Your task to perform on an android device: open app "Lyft - Rideshare, Bikes, Scooters & Transit" Image 0: 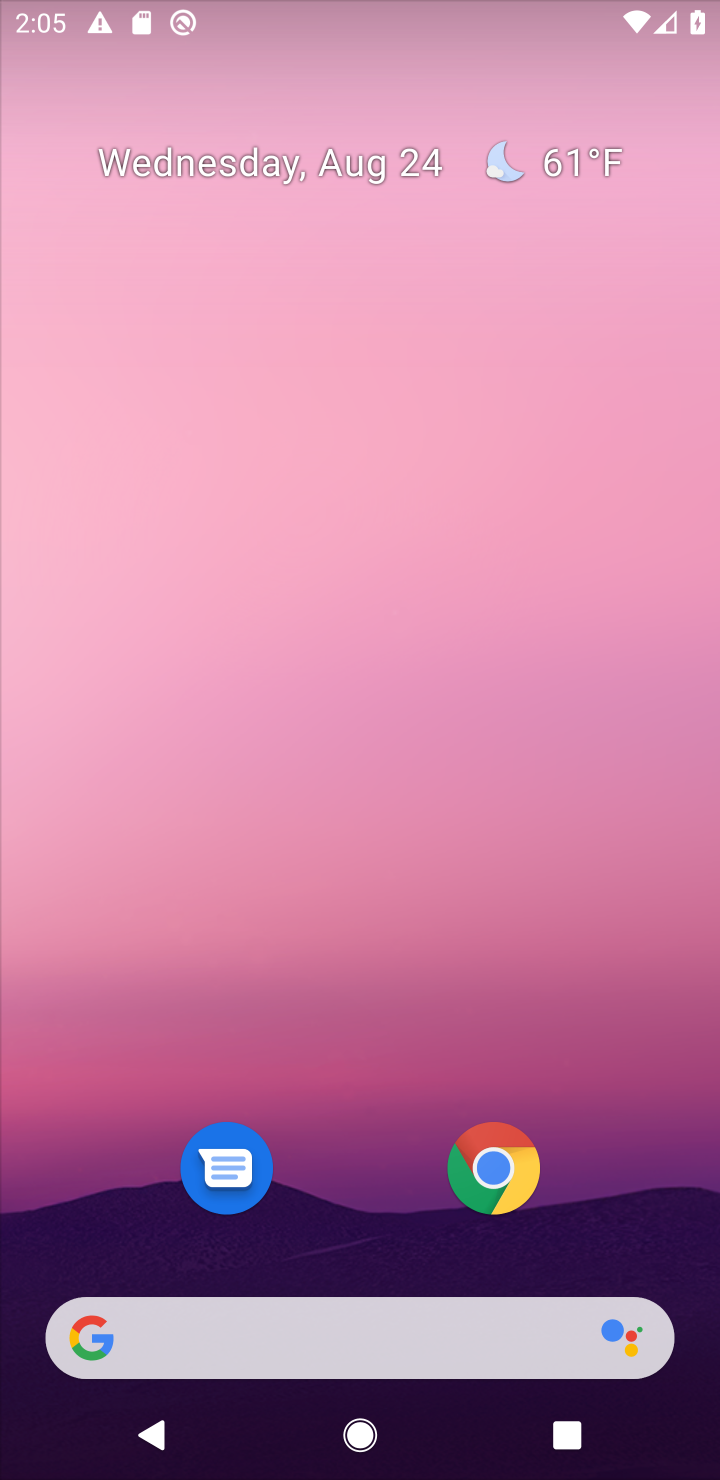
Step 0: press home button
Your task to perform on an android device: open app "Lyft - Rideshare, Bikes, Scooters & Transit" Image 1: 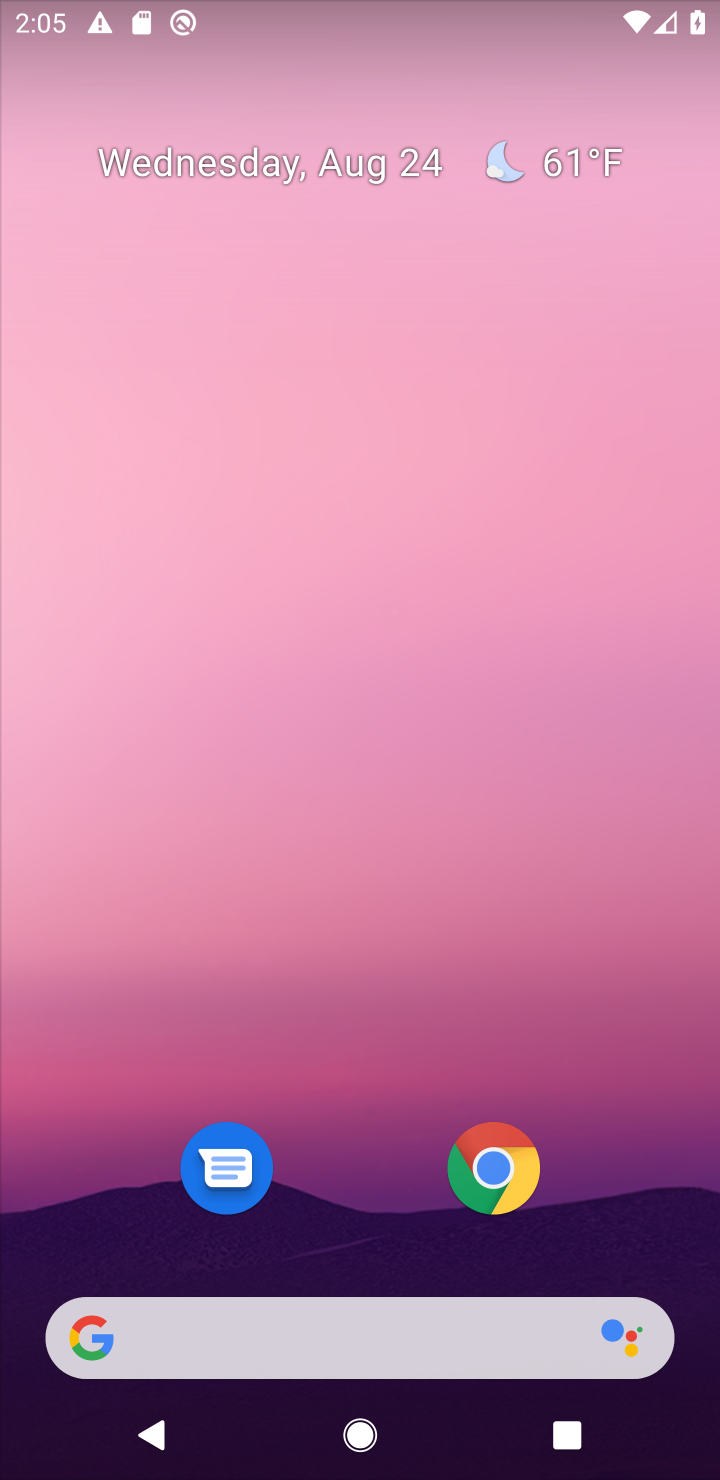
Step 1: drag from (600, 1186) to (555, 547)
Your task to perform on an android device: open app "Lyft - Rideshare, Bikes, Scooters & Transit" Image 2: 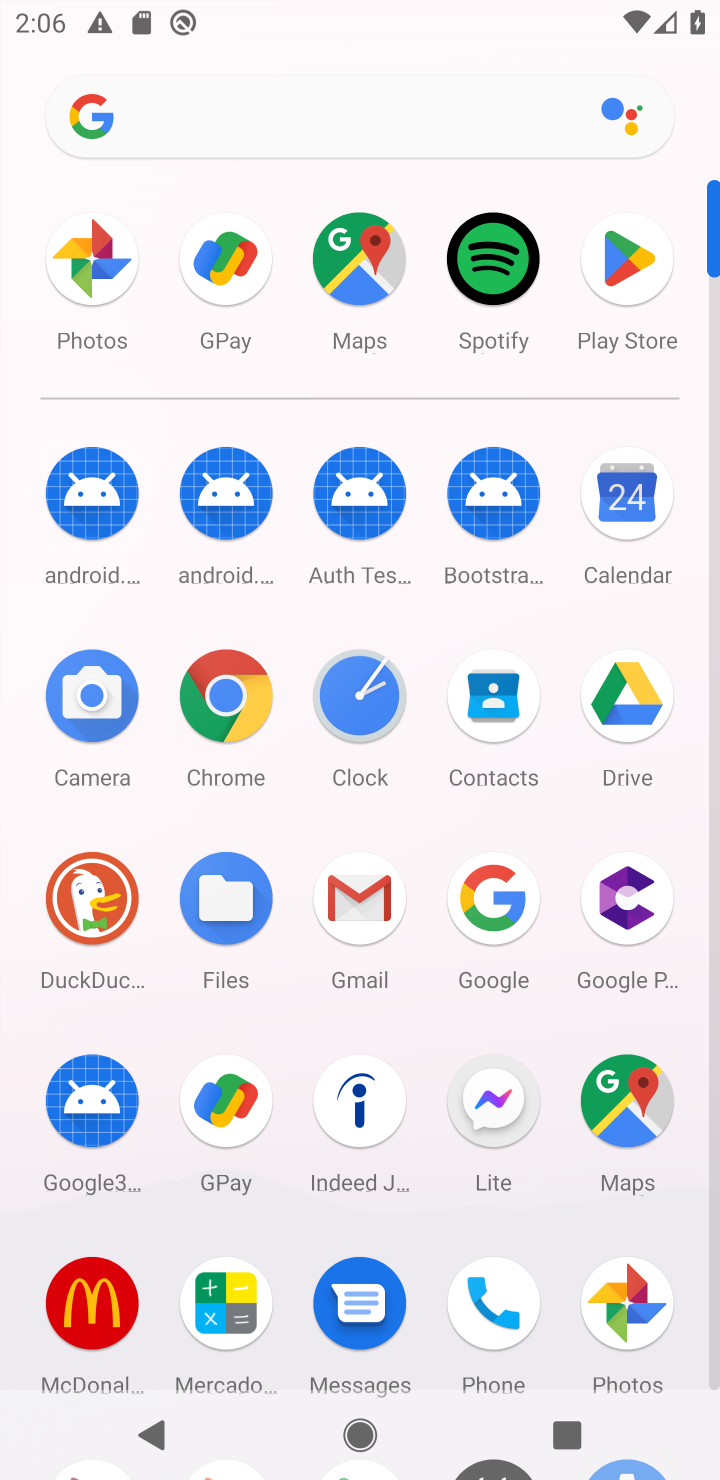
Step 2: click (717, 1280)
Your task to perform on an android device: open app "Lyft - Rideshare, Bikes, Scooters & Transit" Image 3: 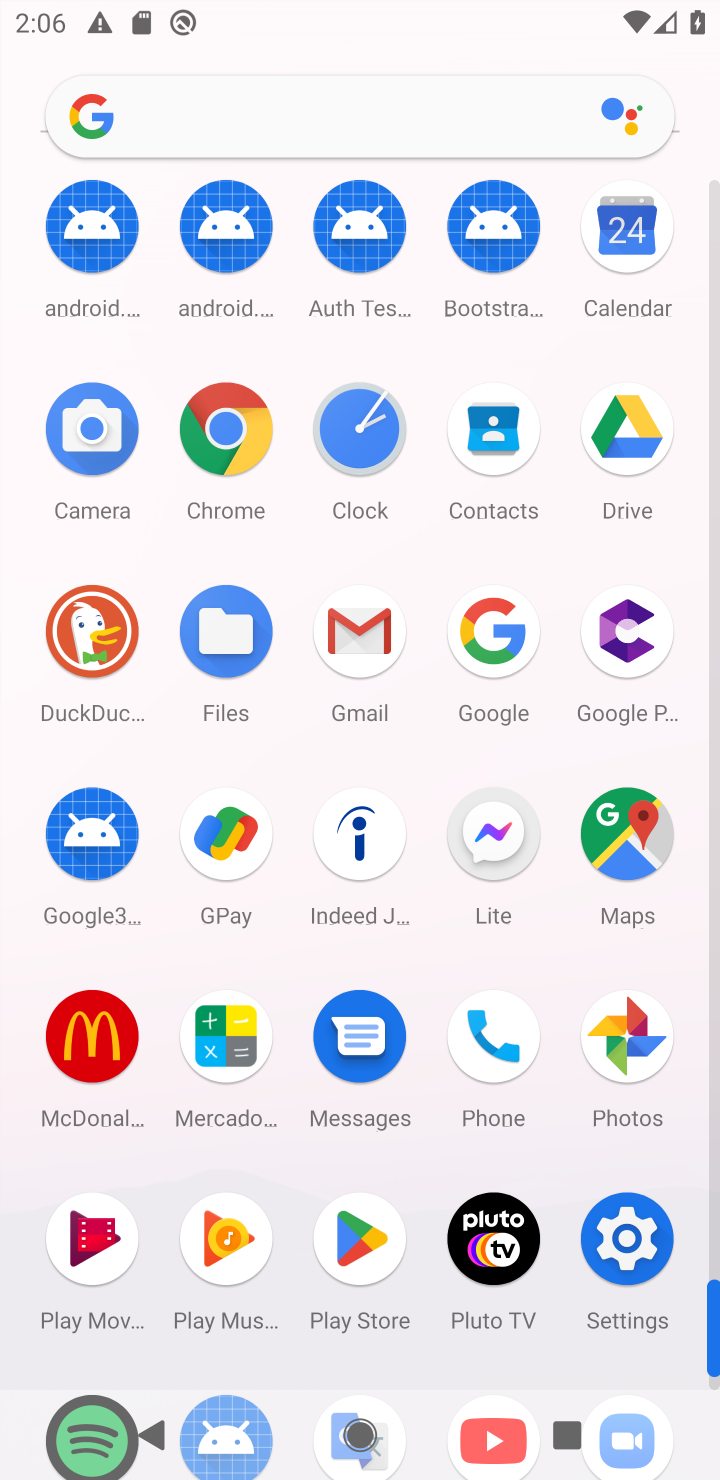
Step 3: click (359, 1234)
Your task to perform on an android device: open app "Lyft - Rideshare, Bikes, Scooters & Transit" Image 4: 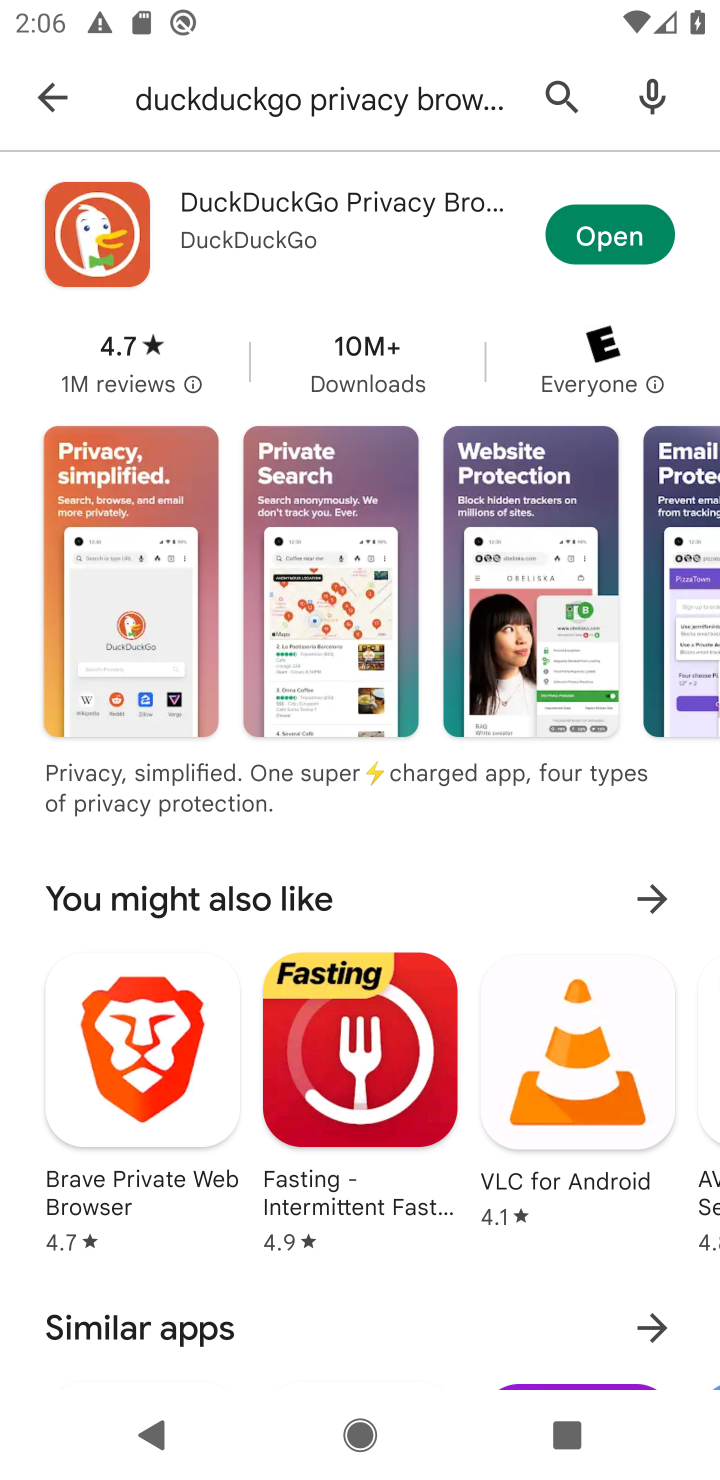
Step 4: click (551, 82)
Your task to perform on an android device: open app "Lyft - Rideshare, Bikes, Scooters & Transit" Image 5: 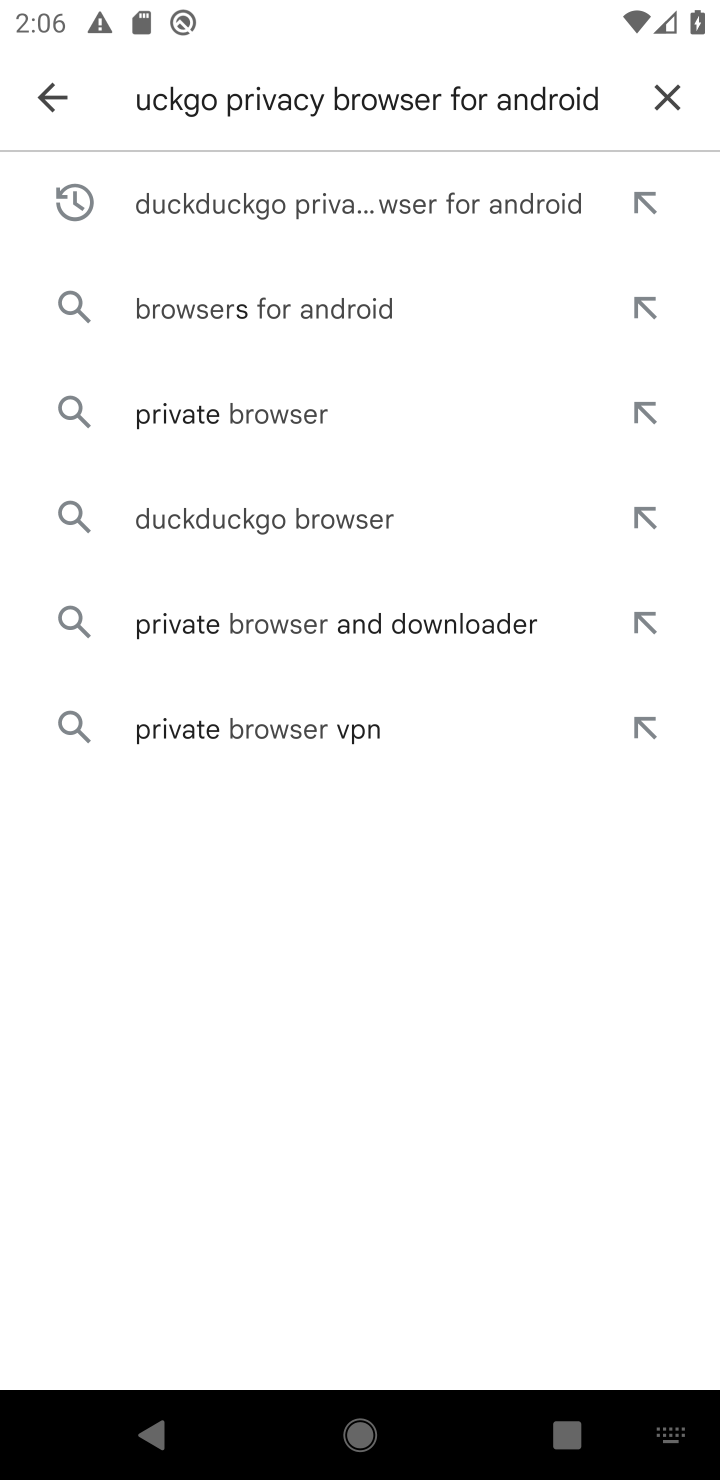
Step 5: click (673, 87)
Your task to perform on an android device: open app "Lyft - Rideshare, Bikes, Scooters & Transit" Image 6: 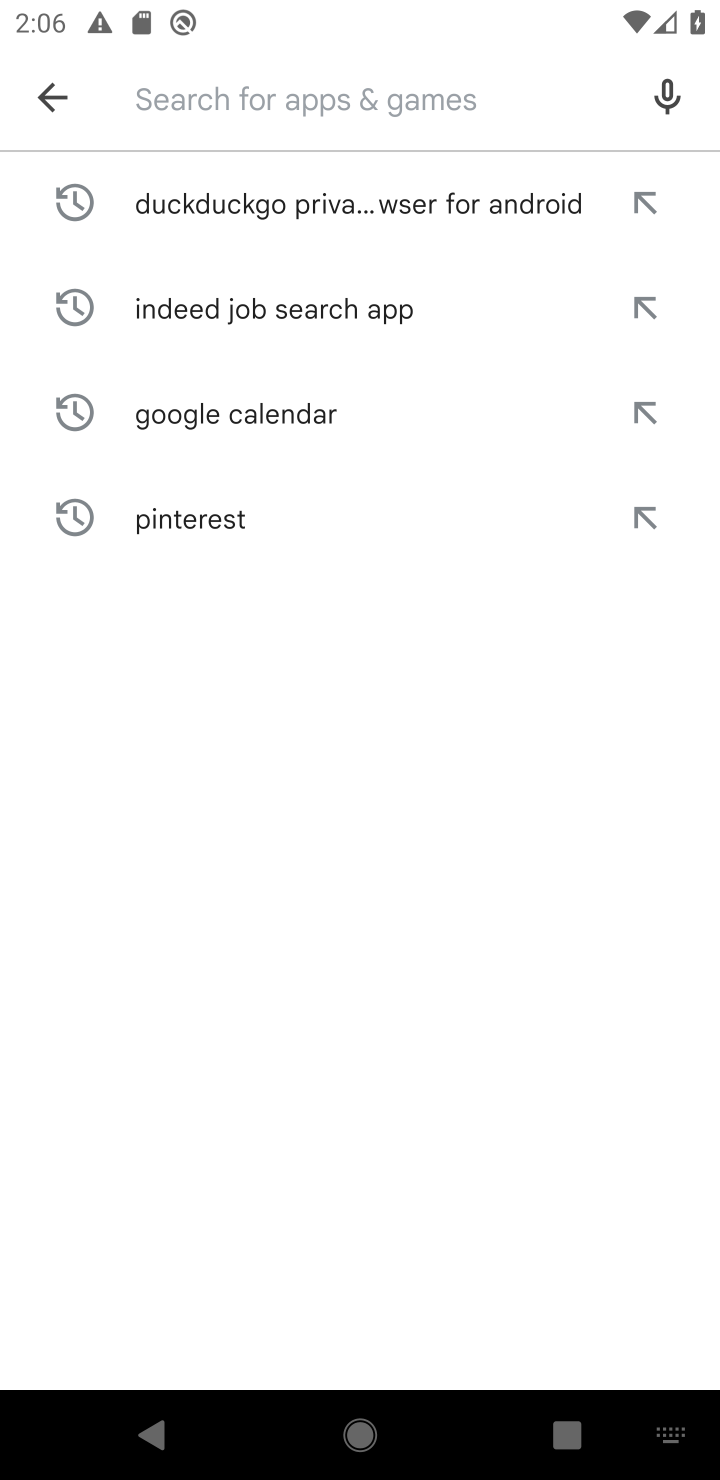
Step 6: type "Lyft - Rideshare, Bikes, Scooters & Transit"
Your task to perform on an android device: open app "Lyft - Rideshare, Bikes, Scooters & Transit" Image 7: 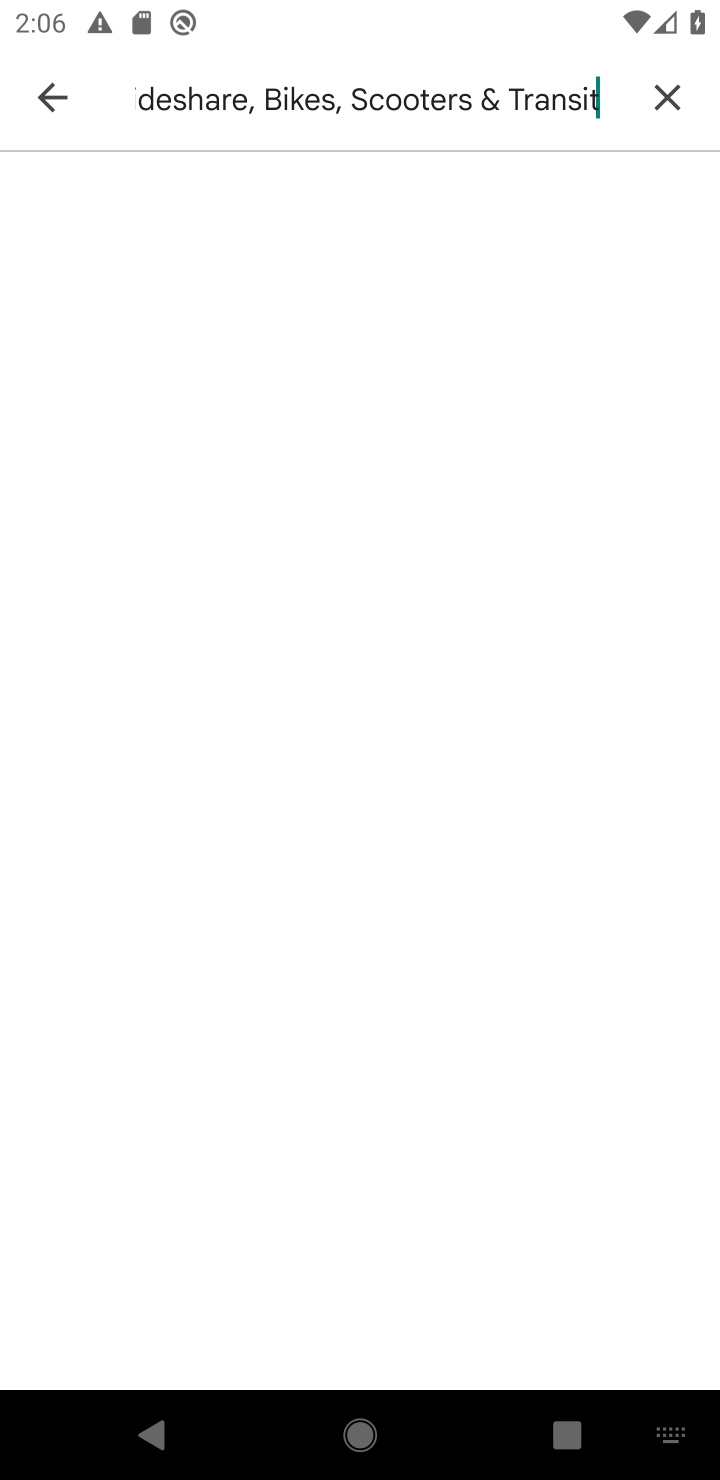
Step 7: task complete